Your task to perform on an android device: check storage Image 0: 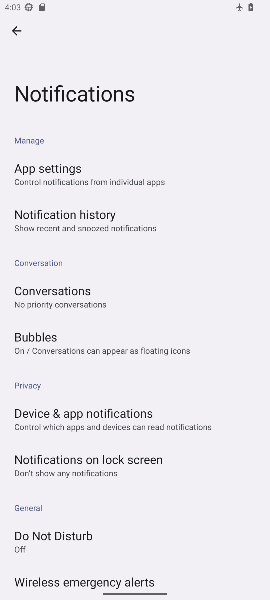
Step 0: press home button
Your task to perform on an android device: check storage Image 1: 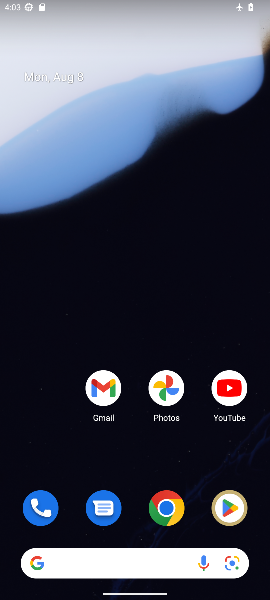
Step 1: drag from (138, 480) to (148, 45)
Your task to perform on an android device: check storage Image 2: 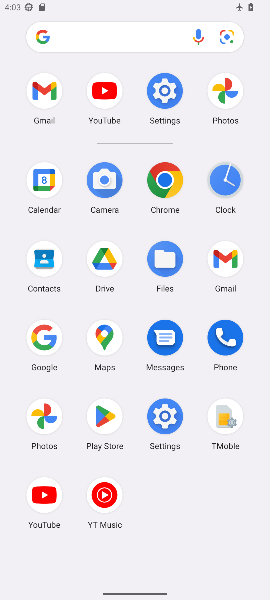
Step 2: click (167, 96)
Your task to perform on an android device: check storage Image 3: 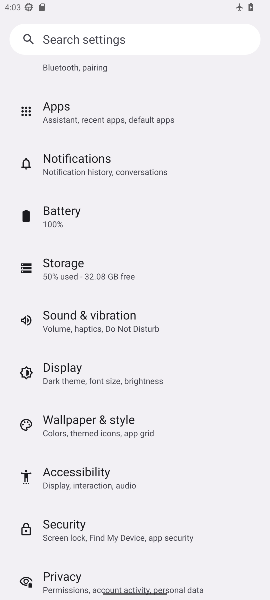
Step 3: click (60, 260)
Your task to perform on an android device: check storage Image 4: 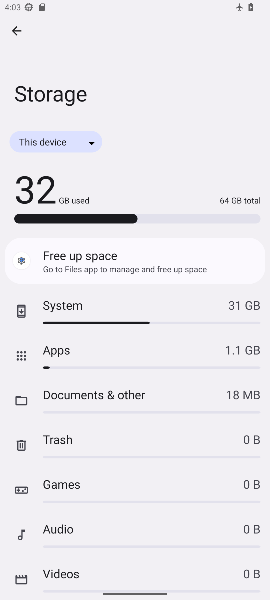
Step 4: task complete